Your task to perform on an android device: turn off priority inbox in the gmail app Image 0: 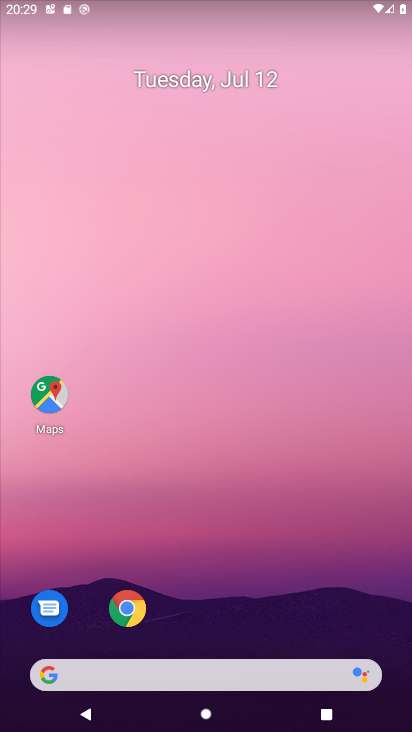
Step 0: drag from (127, 675) to (253, 205)
Your task to perform on an android device: turn off priority inbox in the gmail app Image 1: 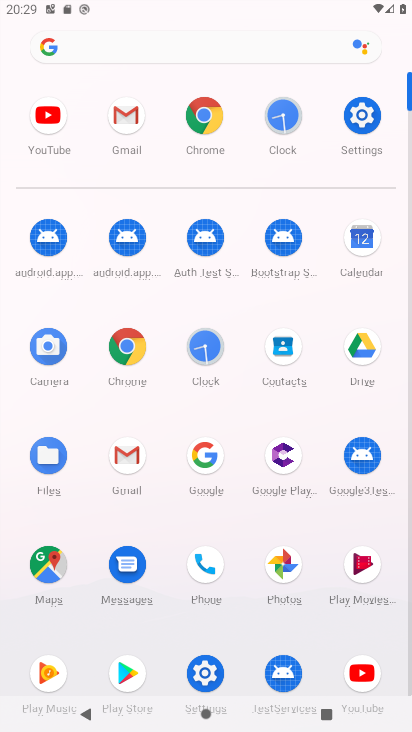
Step 1: click (119, 112)
Your task to perform on an android device: turn off priority inbox in the gmail app Image 2: 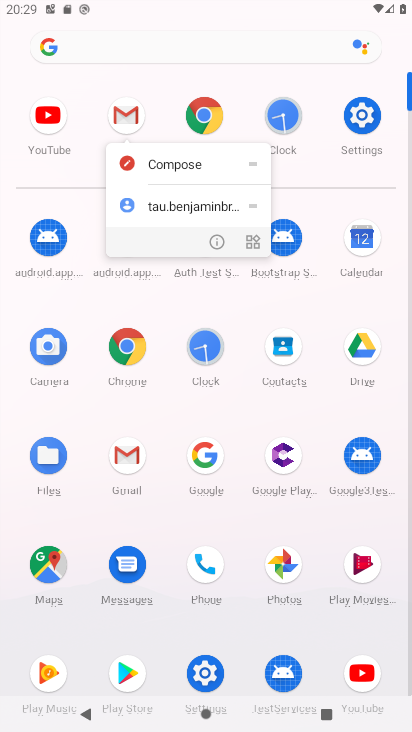
Step 2: click (128, 115)
Your task to perform on an android device: turn off priority inbox in the gmail app Image 3: 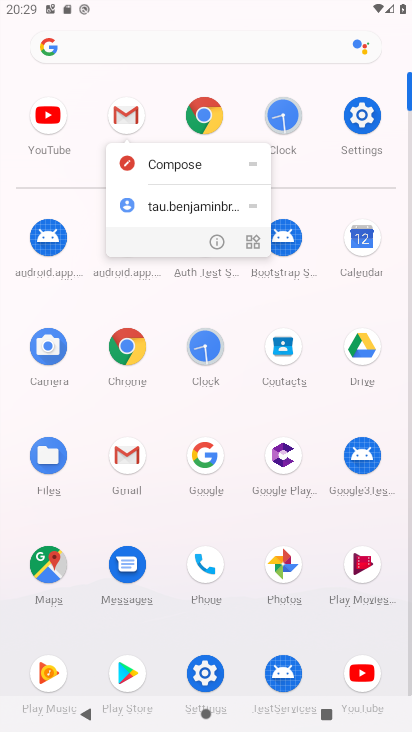
Step 3: click (128, 115)
Your task to perform on an android device: turn off priority inbox in the gmail app Image 4: 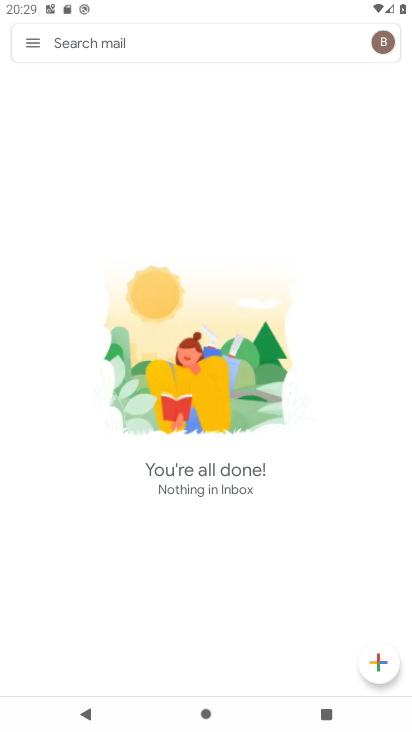
Step 4: click (33, 43)
Your task to perform on an android device: turn off priority inbox in the gmail app Image 5: 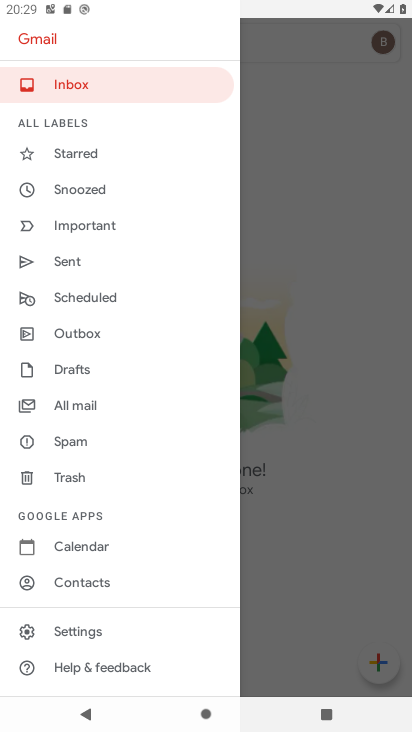
Step 5: click (70, 633)
Your task to perform on an android device: turn off priority inbox in the gmail app Image 6: 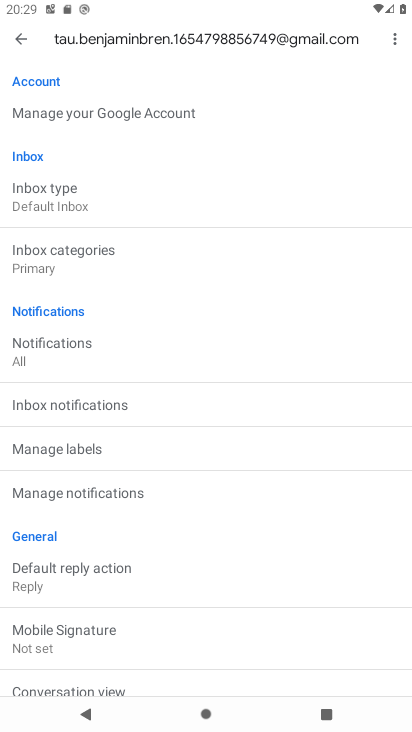
Step 6: click (35, 203)
Your task to perform on an android device: turn off priority inbox in the gmail app Image 7: 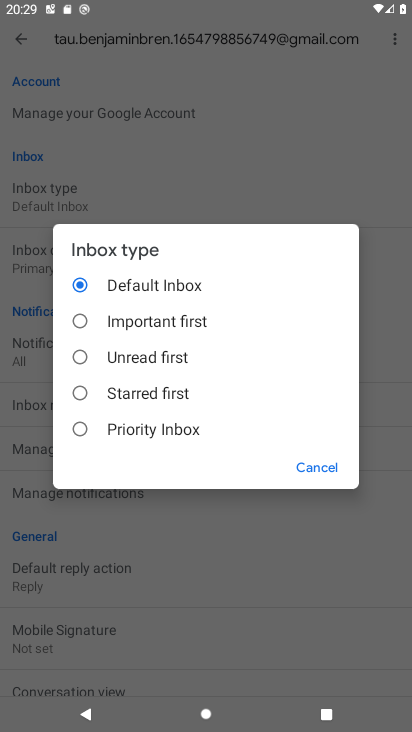
Step 7: task complete